Your task to perform on an android device: check google app version Image 0: 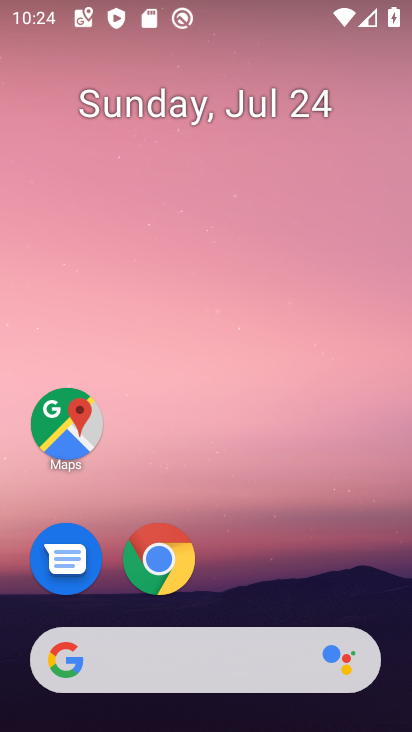
Step 0: drag from (261, 610) to (263, 0)
Your task to perform on an android device: check google app version Image 1: 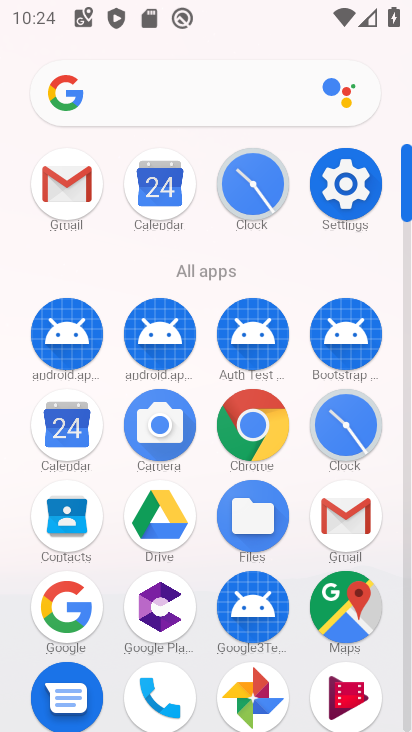
Step 1: click (77, 595)
Your task to perform on an android device: check google app version Image 2: 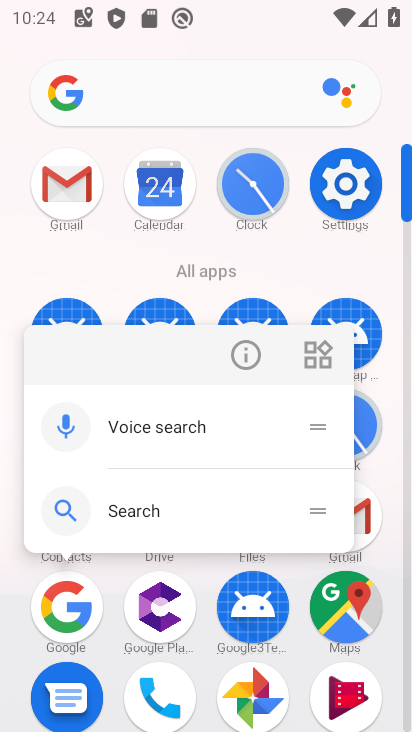
Step 2: click (246, 355)
Your task to perform on an android device: check google app version Image 3: 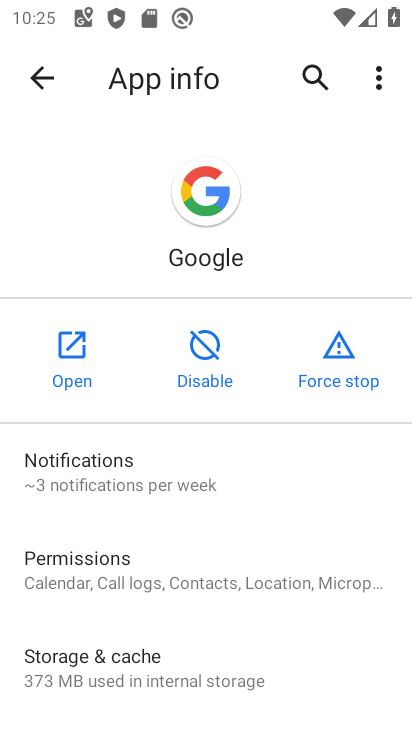
Step 3: drag from (144, 684) to (267, 54)
Your task to perform on an android device: check google app version Image 4: 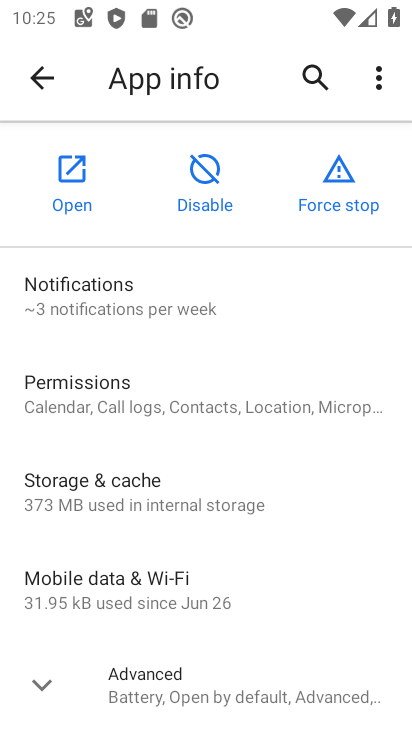
Step 4: drag from (154, 658) to (256, 90)
Your task to perform on an android device: check google app version Image 5: 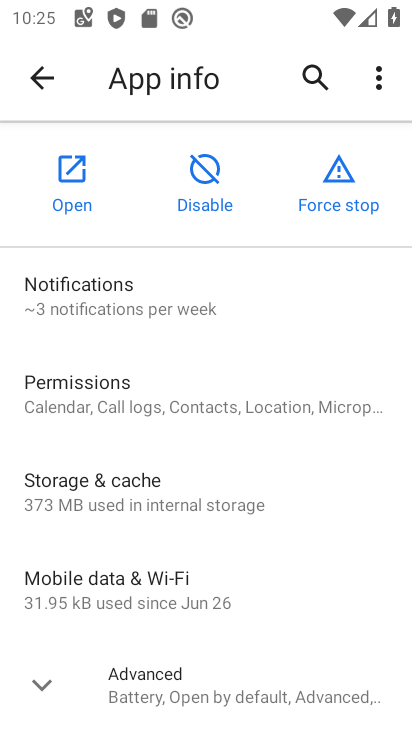
Step 5: click (188, 699)
Your task to perform on an android device: check google app version Image 6: 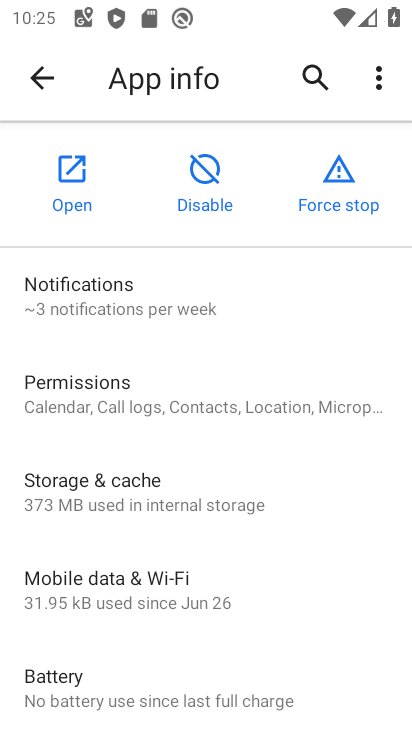
Step 6: task complete